Your task to perform on an android device: Go to accessibility settings Image 0: 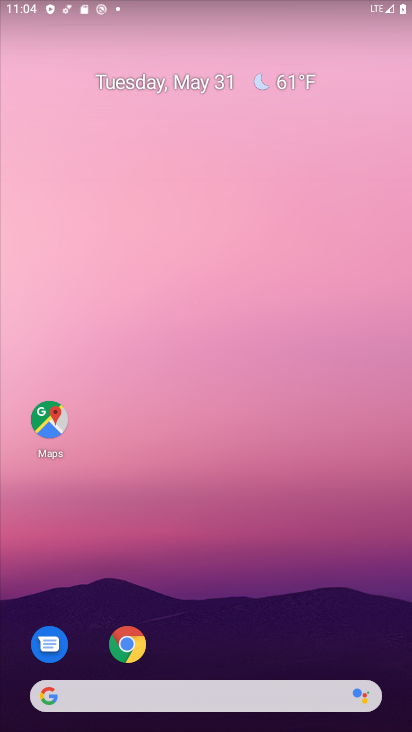
Step 0: drag from (239, 629) to (255, 25)
Your task to perform on an android device: Go to accessibility settings Image 1: 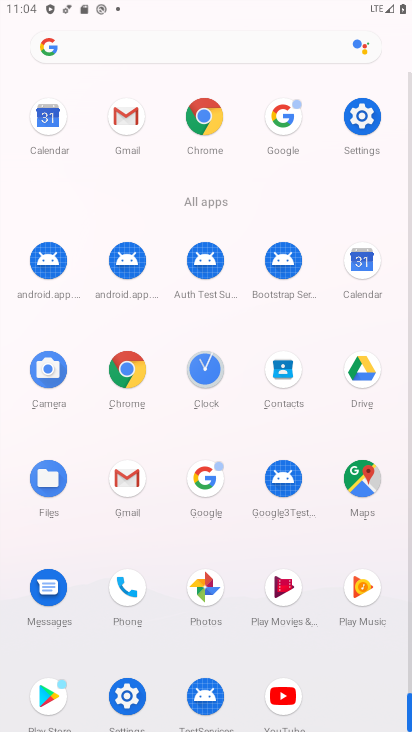
Step 1: click (368, 117)
Your task to perform on an android device: Go to accessibility settings Image 2: 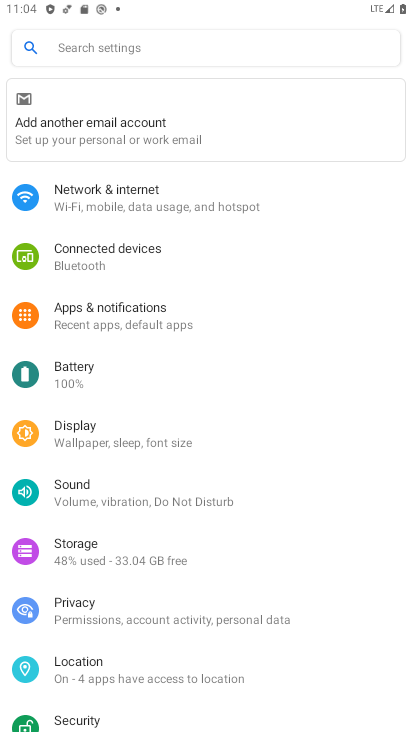
Step 2: drag from (141, 676) to (175, 173)
Your task to perform on an android device: Go to accessibility settings Image 3: 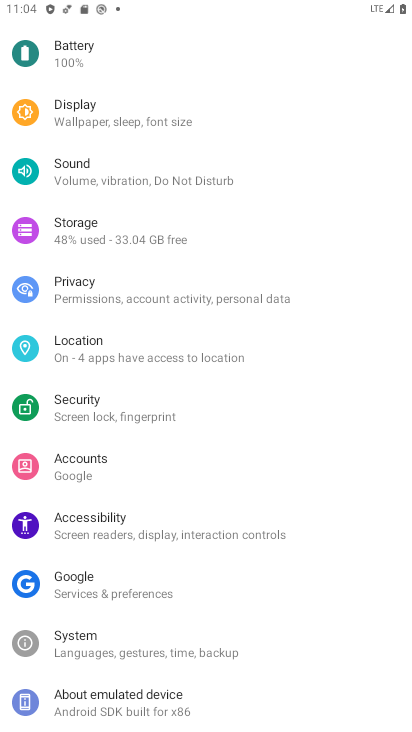
Step 3: click (111, 519)
Your task to perform on an android device: Go to accessibility settings Image 4: 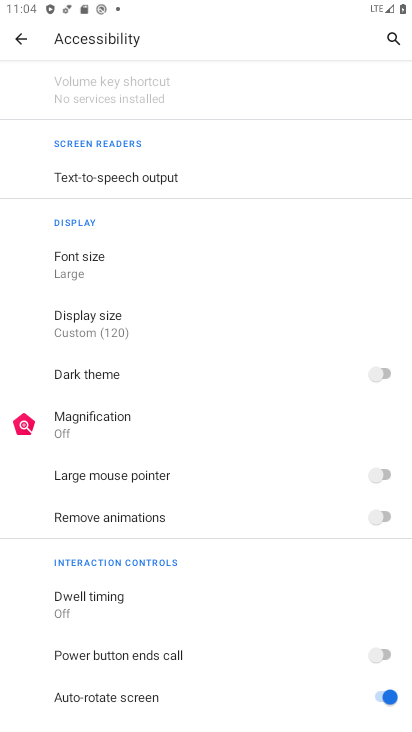
Step 4: task complete